Your task to perform on an android device: Go to sound settings Image 0: 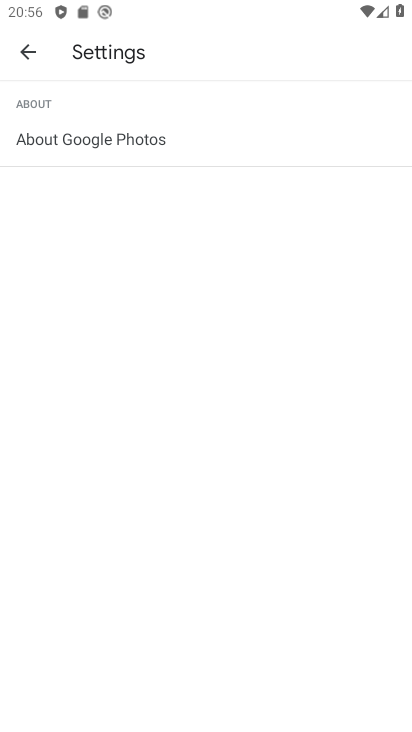
Step 0: press back button
Your task to perform on an android device: Go to sound settings Image 1: 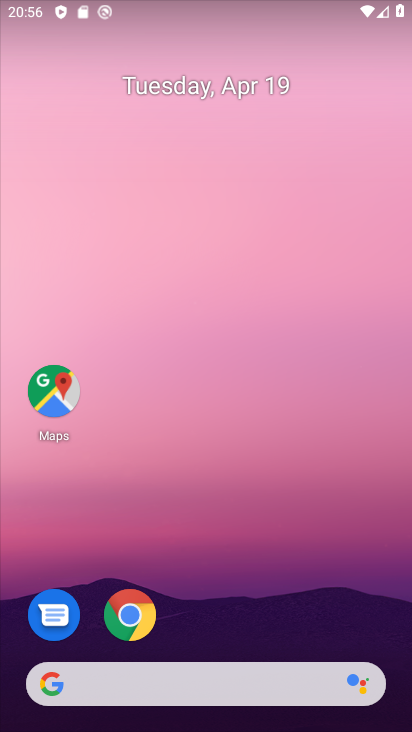
Step 1: drag from (213, 659) to (266, 334)
Your task to perform on an android device: Go to sound settings Image 2: 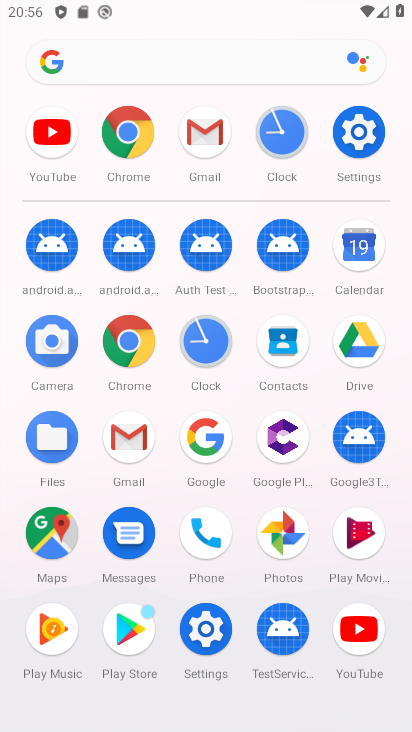
Step 2: click (363, 132)
Your task to perform on an android device: Go to sound settings Image 3: 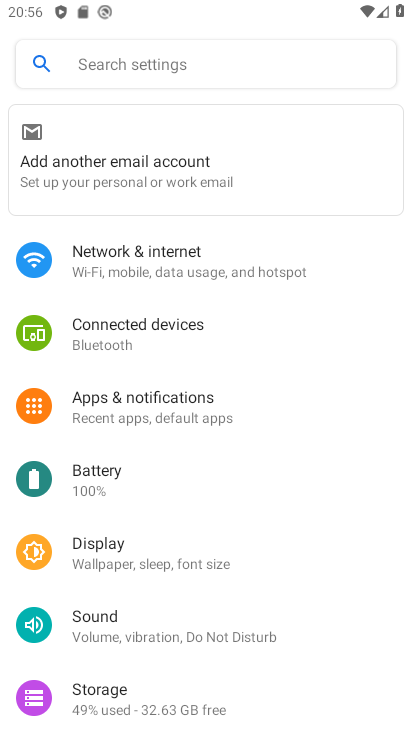
Step 3: click (108, 629)
Your task to perform on an android device: Go to sound settings Image 4: 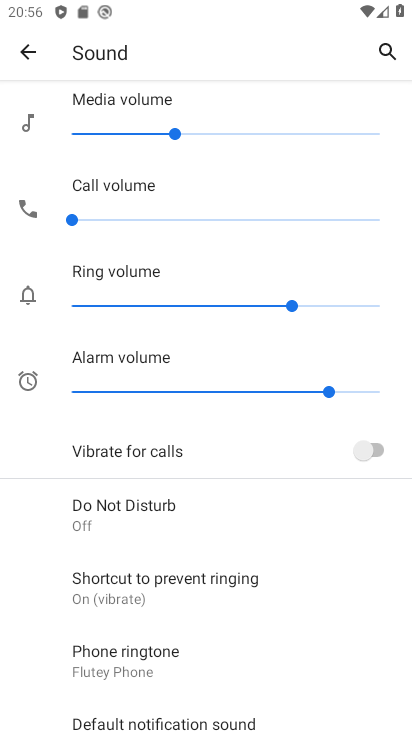
Step 4: drag from (162, 693) to (247, 323)
Your task to perform on an android device: Go to sound settings Image 5: 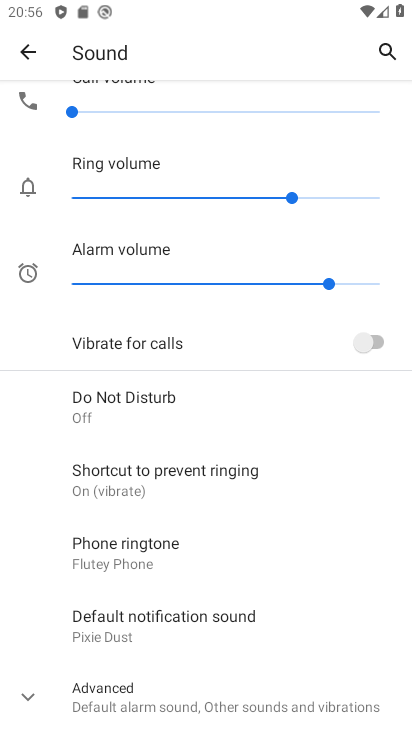
Step 5: click (171, 704)
Your task to perform on an android device: Go to sound settings Image 6: 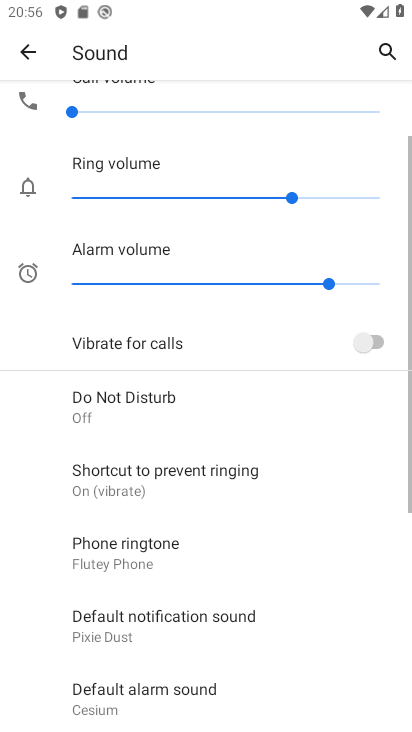
Step 6: task complete